Your task to perform on an android device: change text size in settings app Image 0: 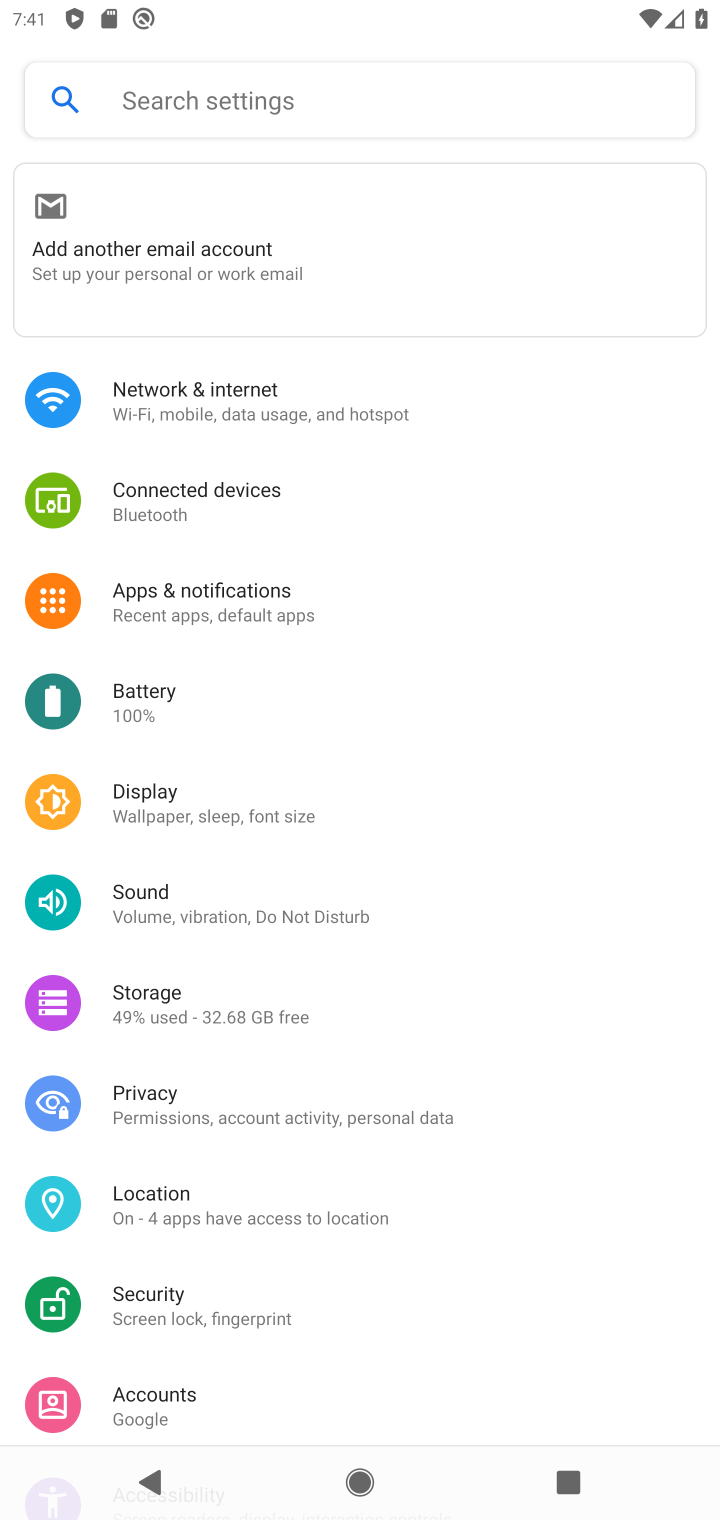
Step 0: drag from (433, 1278) to (438, 726)
Your task to perform on an android device: change text size in settings app Image 1: 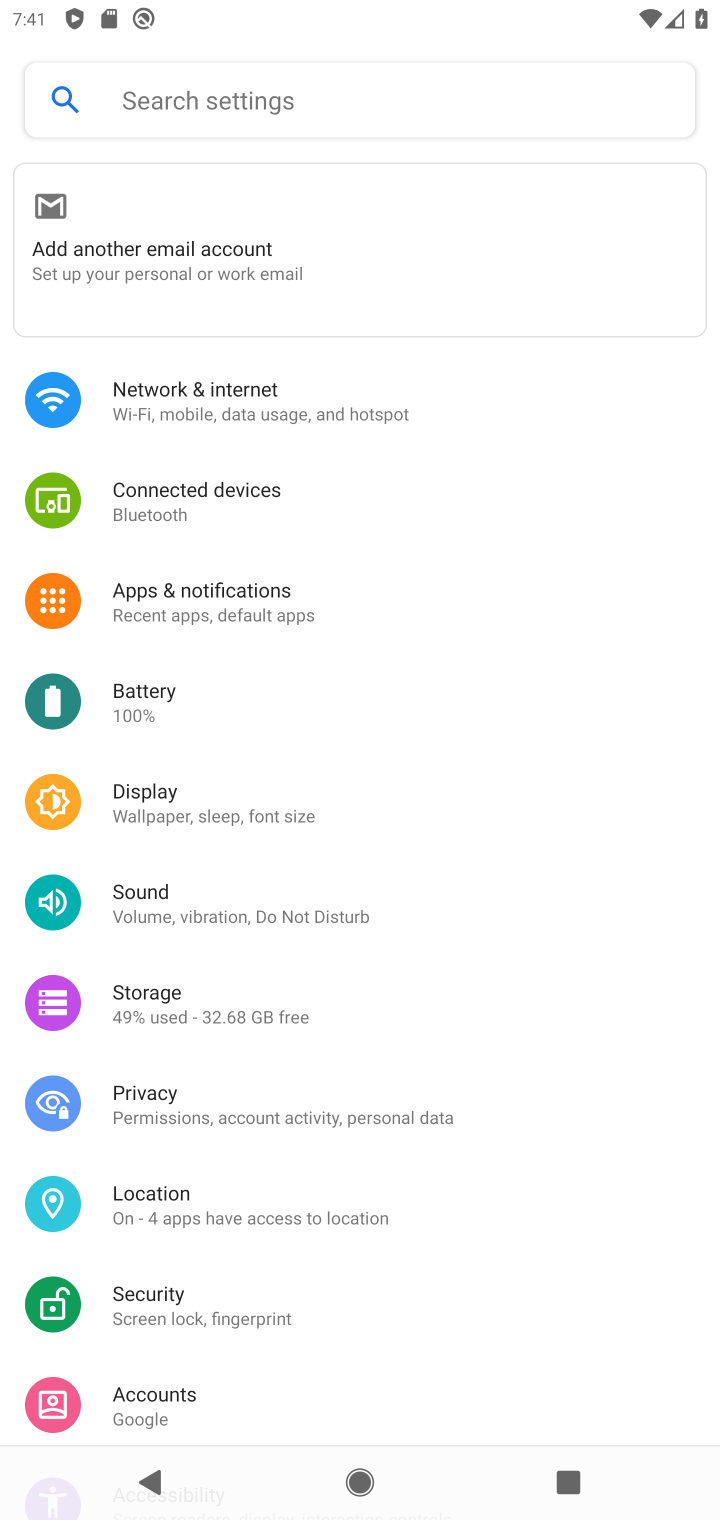
Step 1: click (230, 816)
Your task to perform on an android device: change text size in settings app Image 2: 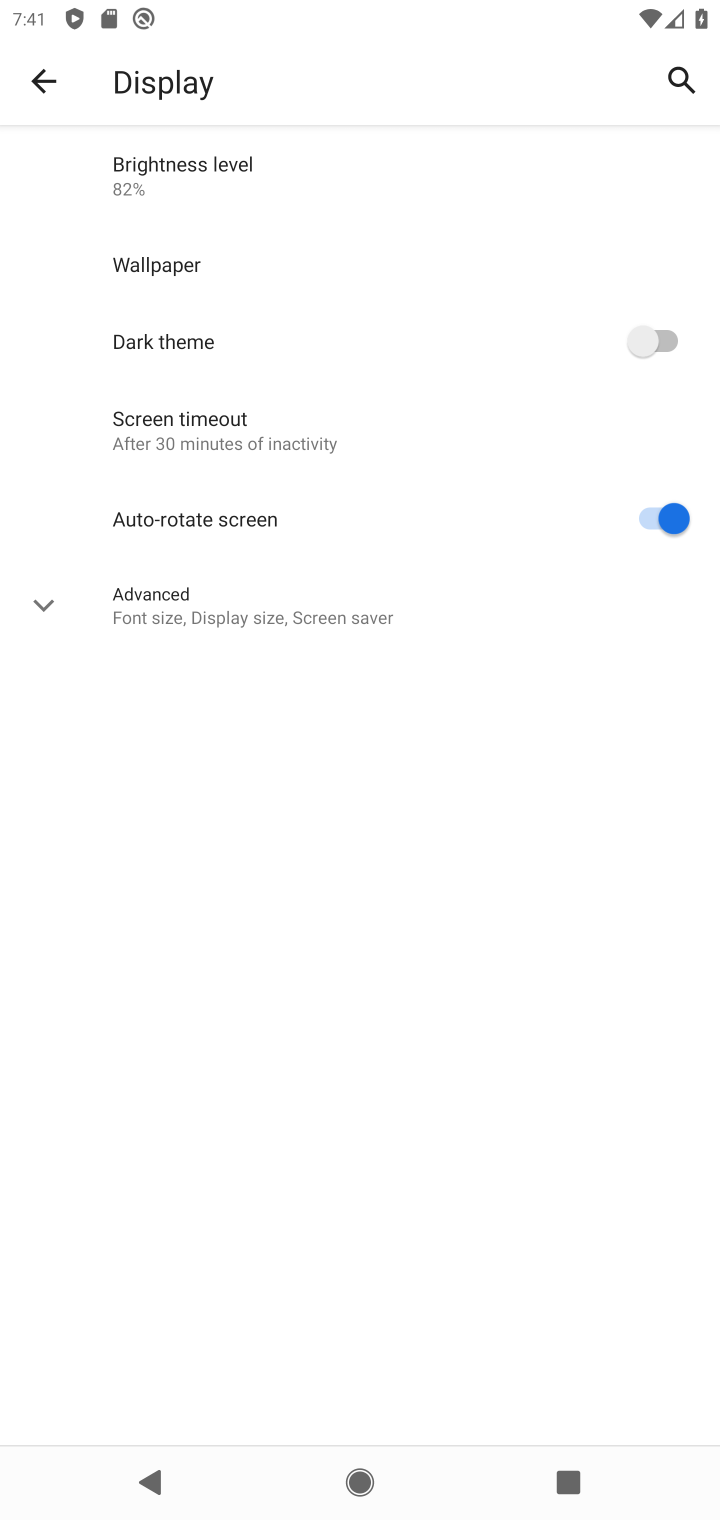
Step 2: click (209, 616)
Your task to perform on an android device: change text size in settings app Image 3: 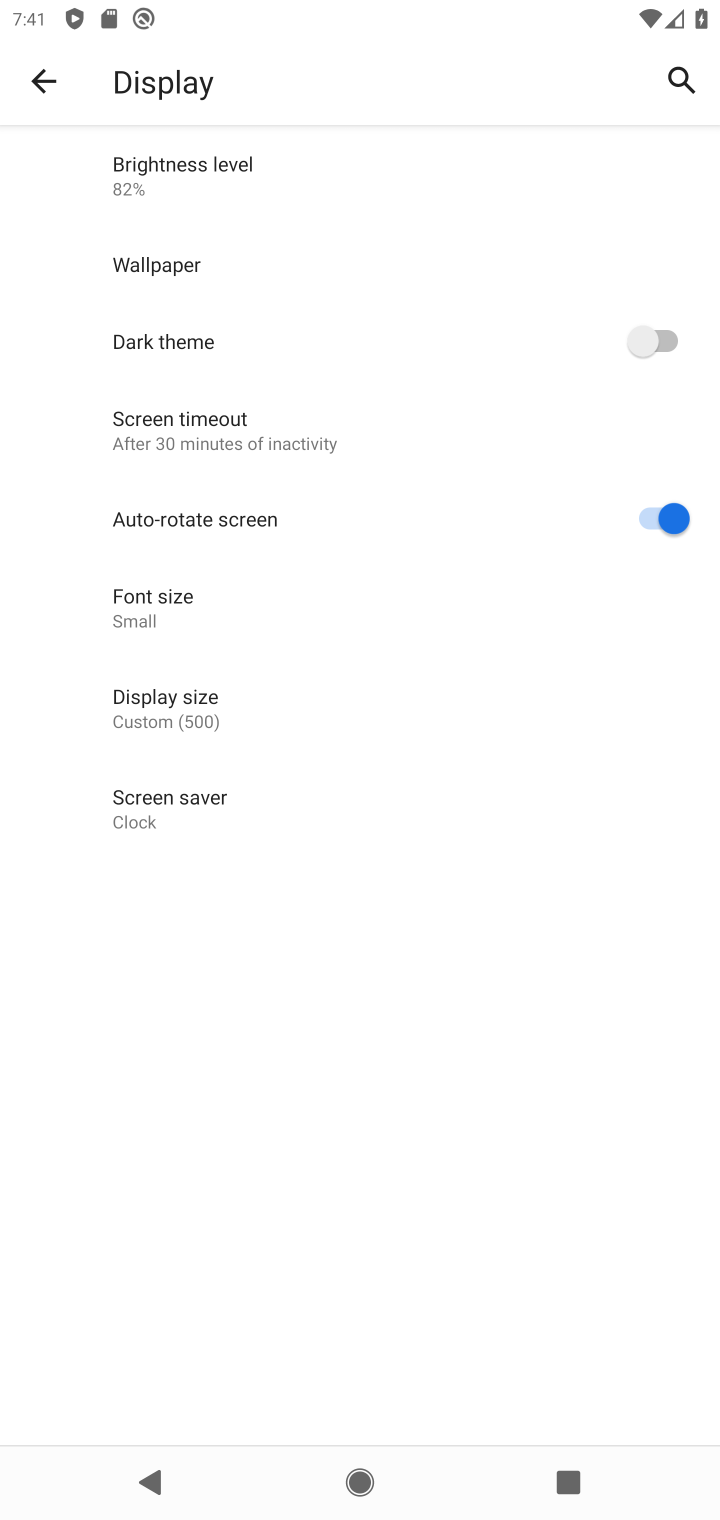
Step 3: click (277, 596)
Your task to perform on an android device: change text size in settings app Image 4: 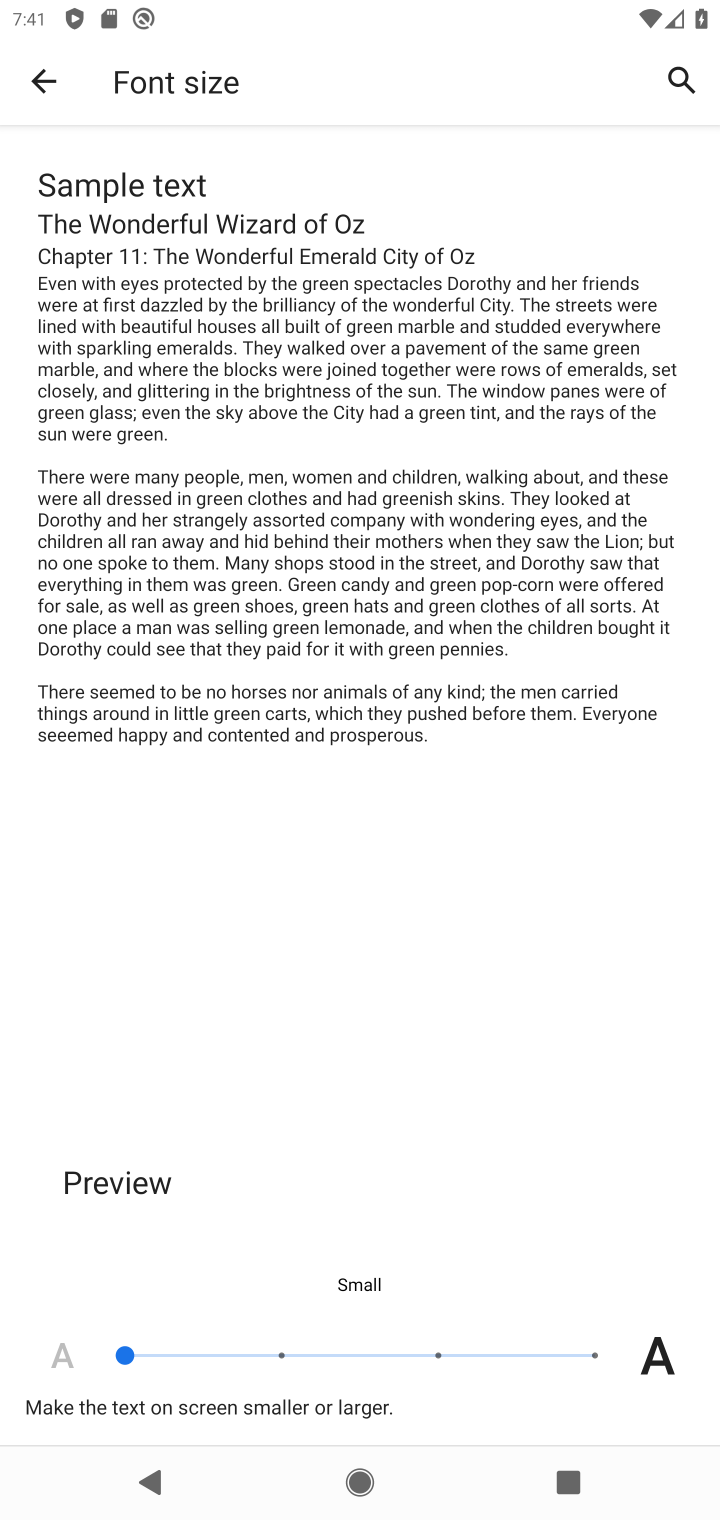
Step 4: drag from (407, 920) to (360, 309)
Your task to perform on an android device: change text size in settings app Image 5: 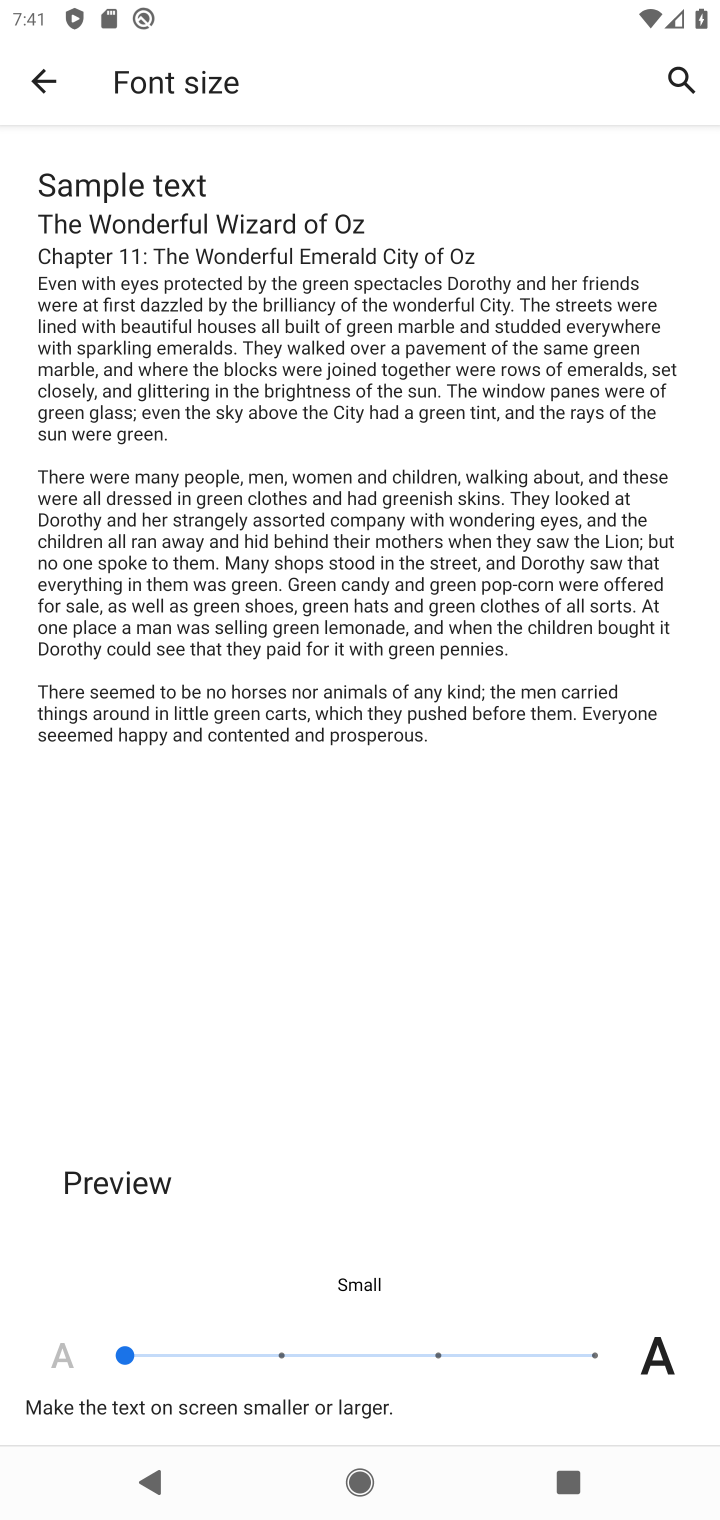
Step 5: click (277, 1353)
Your task to perform on an android device: change text size in settings app Image 6: 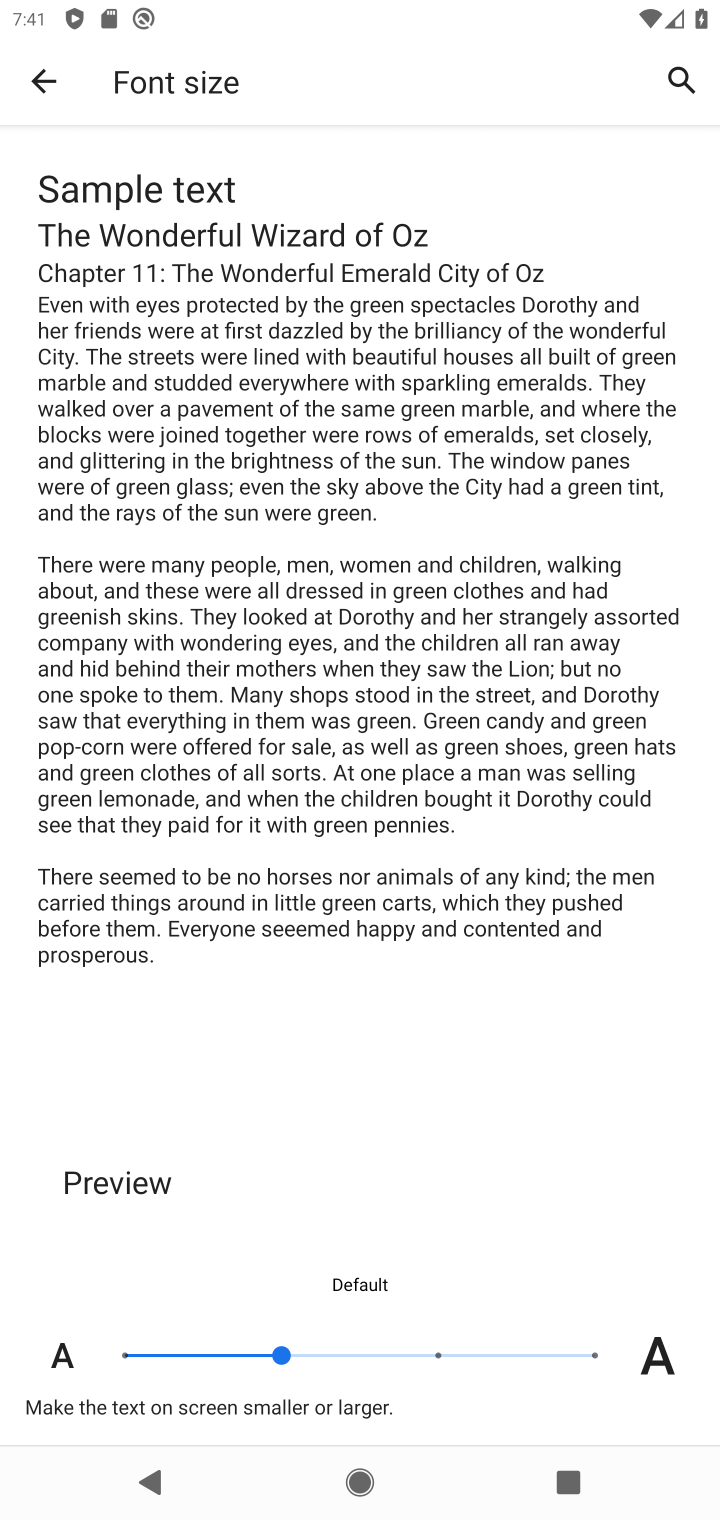
Step 6: click (416, 1355)
Your task to perform on an android device: change text size in settings app Image 7: 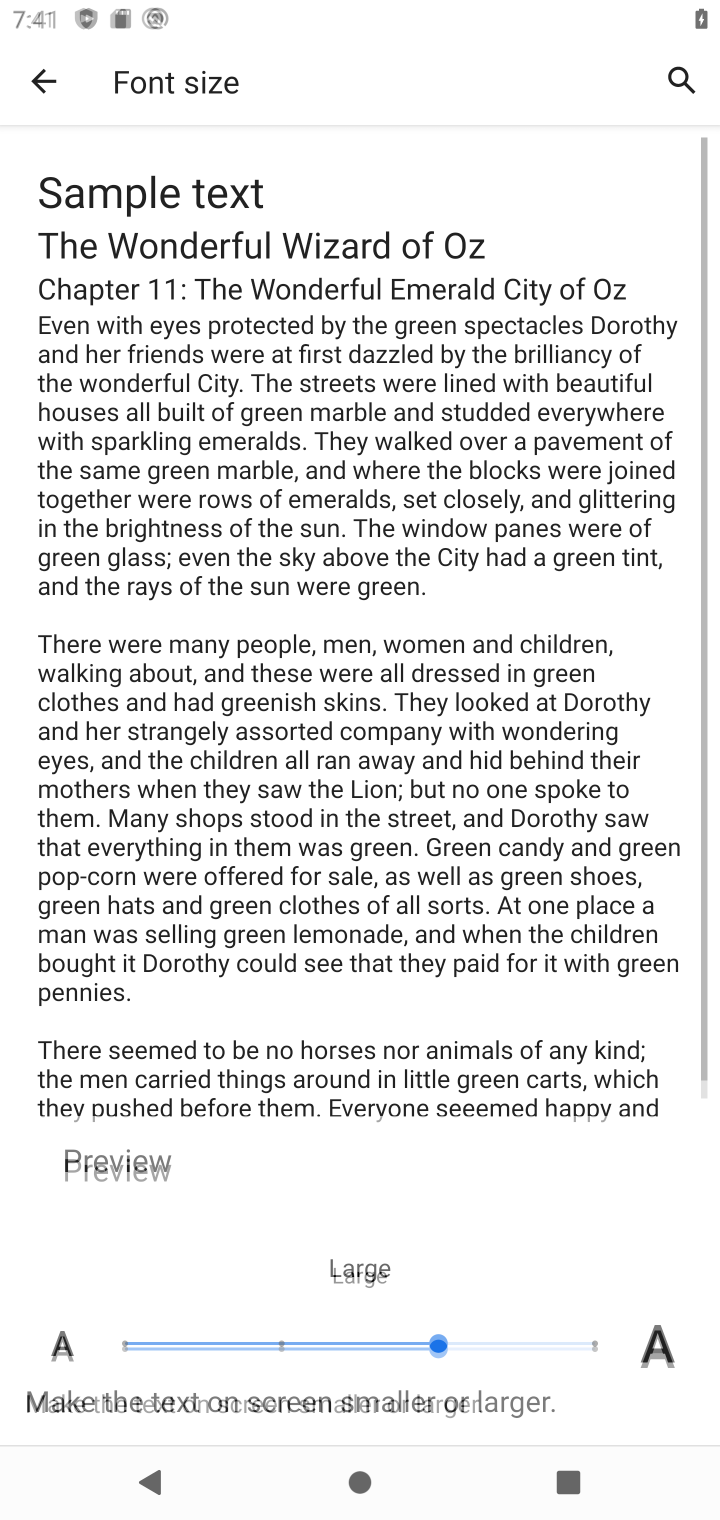
Step 7: task complete